Your task to perform on an android device: View the shopping cart on newegg.com. Image 0: 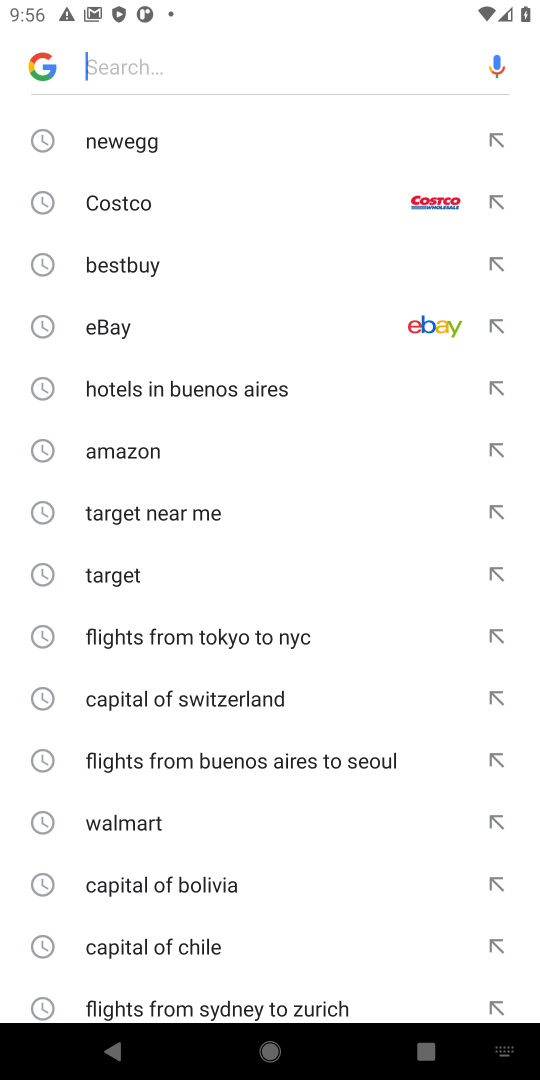
Step 0: press home button
Your task to perform on an android device: View the shopping cart on newegg.com. Image 1: 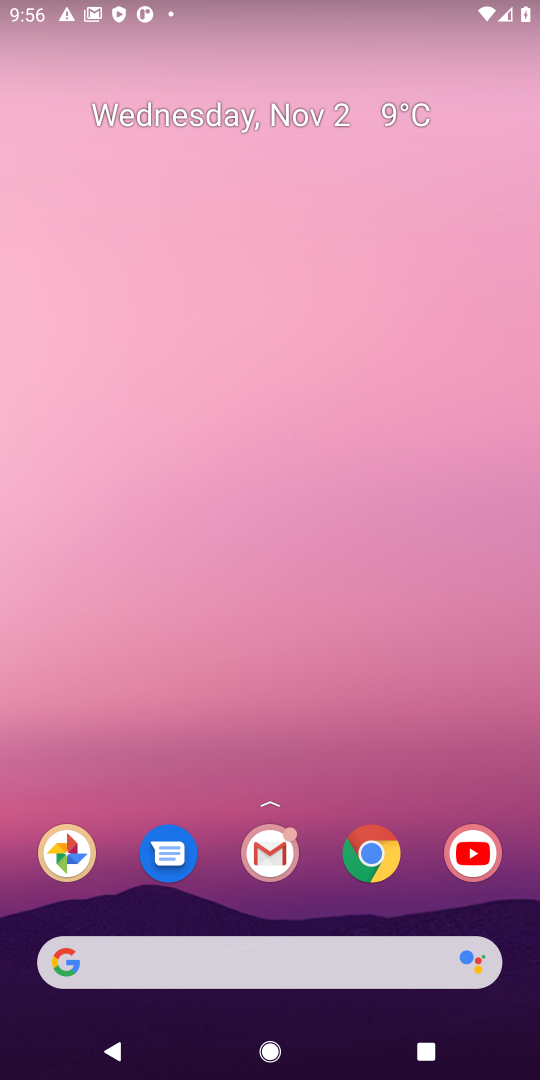
Step 1: click (368, 861)
Your task to perform on an android device: View the shopping cart on newegg.com. Image 2: 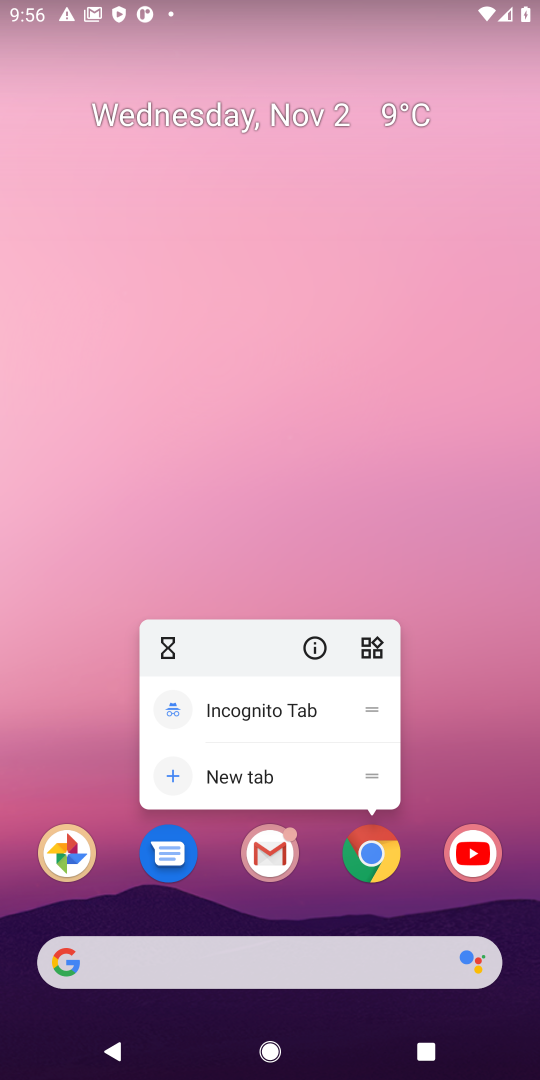
Step 2: click (365, 861)
Your task to perform on an android device: View the shopping cart on newegg.com. Image 3: 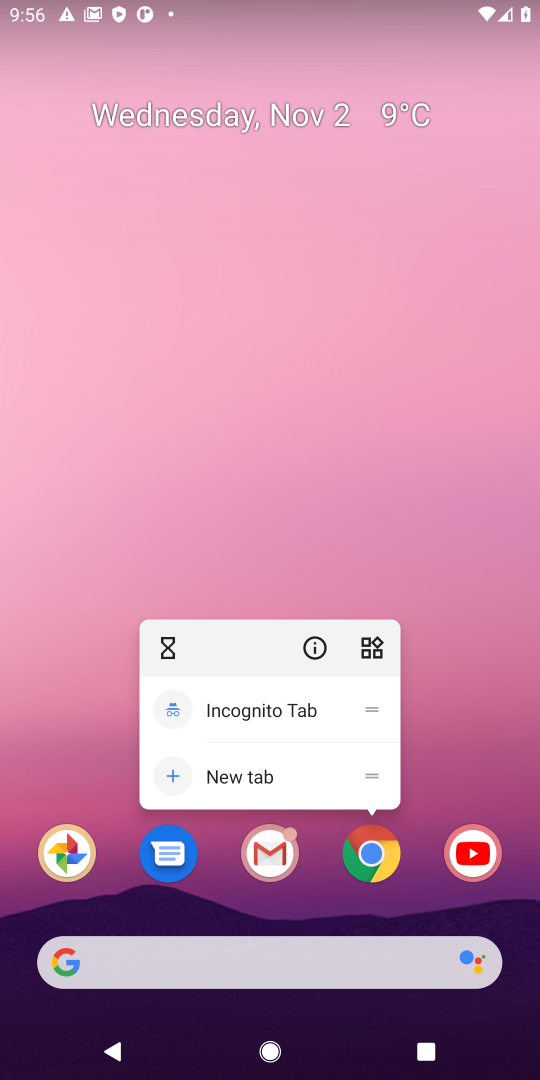
Step 3: click (379, 855)
Your task to perform on an android device: View the shopping cart on newegg.com. Image 4: 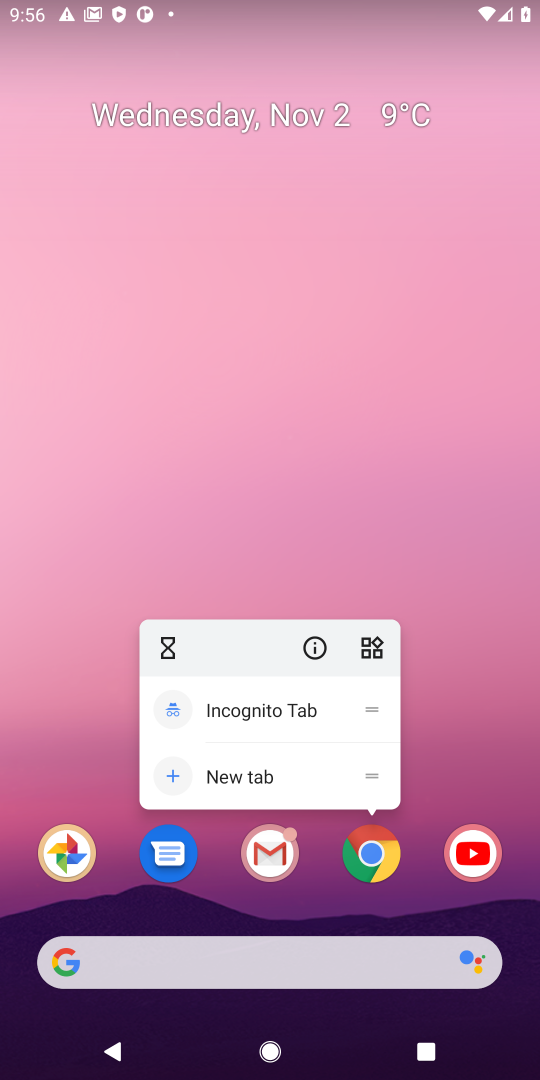
Step 4: click (370, 858)
Your task to perform on an android device: View the shopping cart on newegg.com. Image 5: 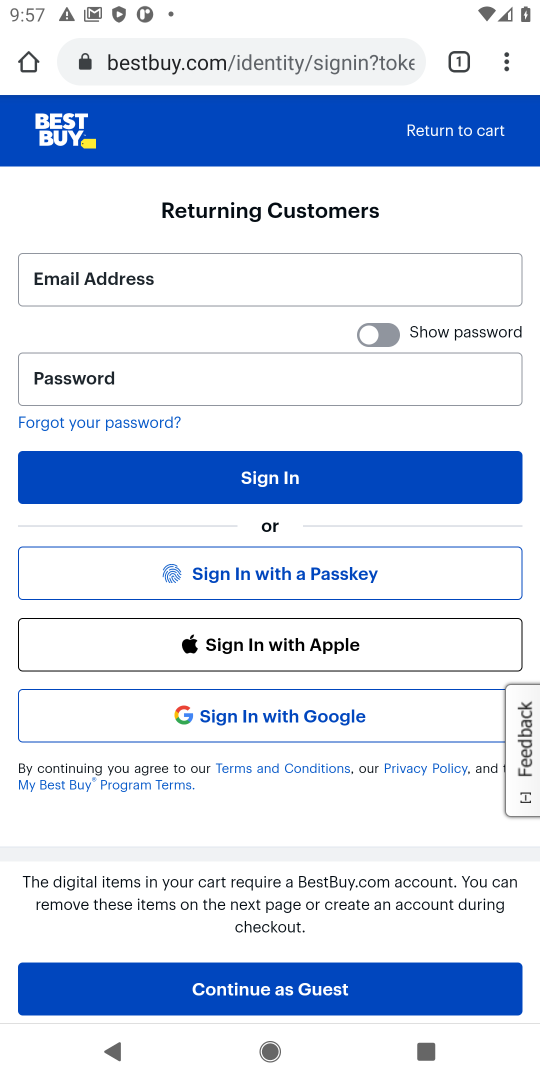
Step 5: click (278, 55)
Your task to perform on an android device: View the shopping cart on newegg.com. Image 6: 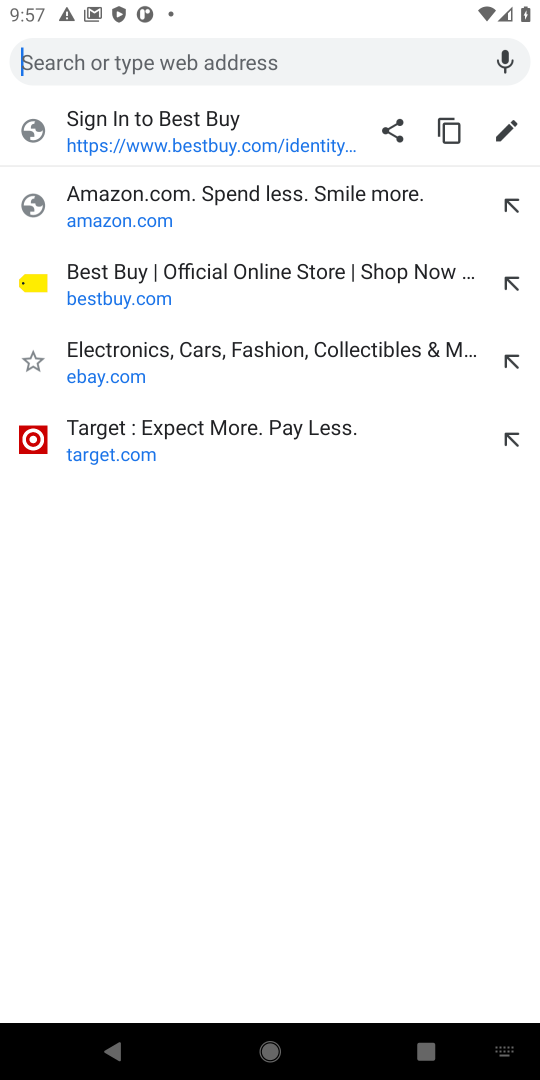
Step 6: type "newegg.com"
Your task to perform on an android device: View the shopping cart on newegg.com. Image 7: 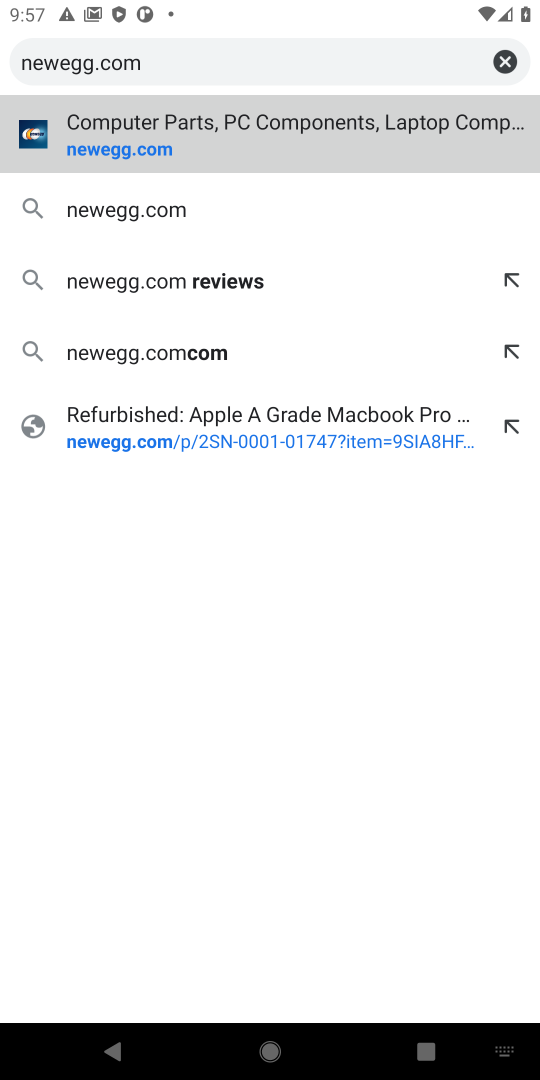
Step 7: press enter
Your task to perform on an android device: View the shopping cart on newegg.com. Image 8: 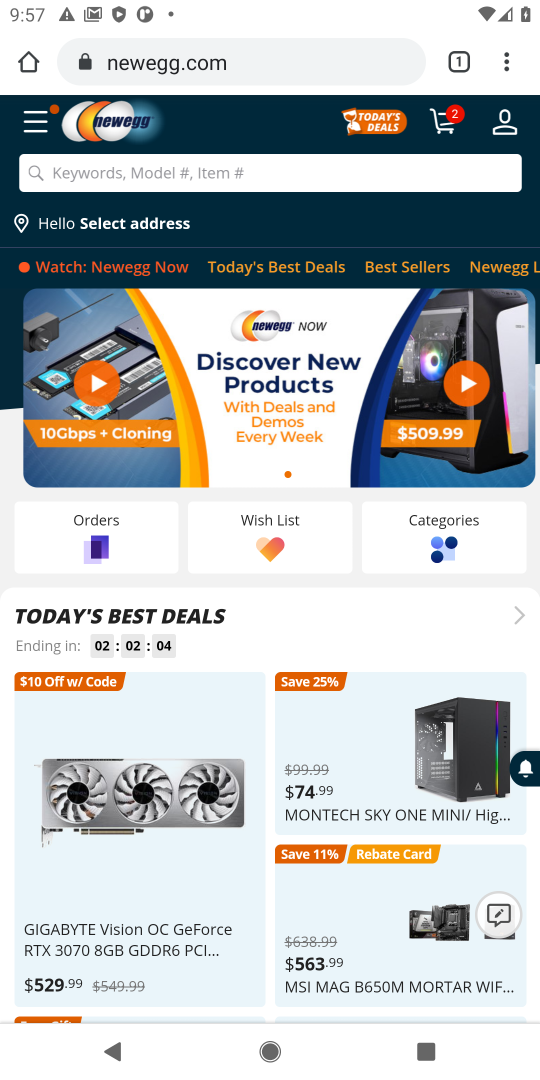
Step 8: click (446, 129)
Your task to perform on an android device: View the shopping cart on newegg.com. Image 9: 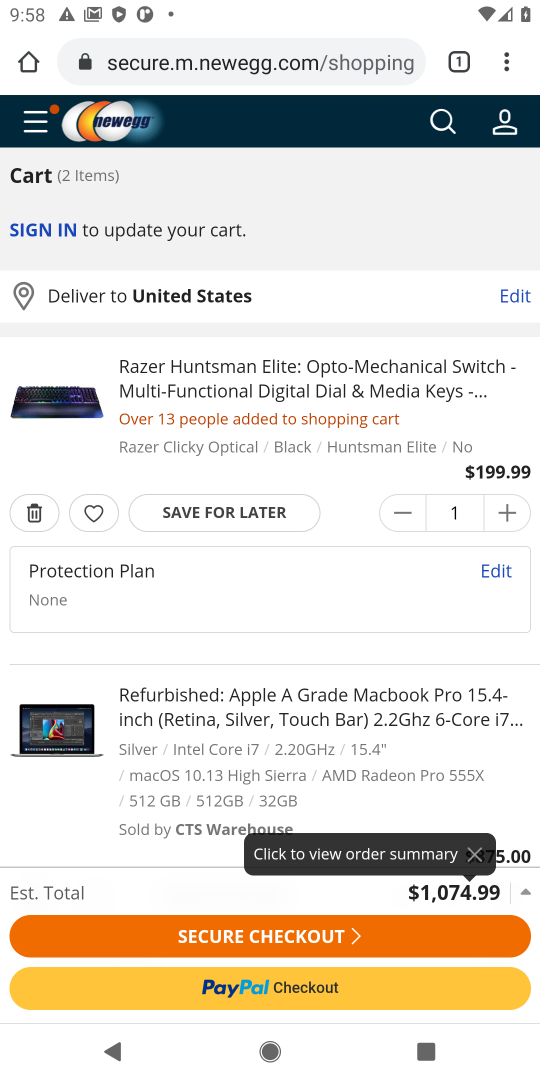
Step 9: task complete